Your task to perform on an android device: change text size in settings app Image 0: 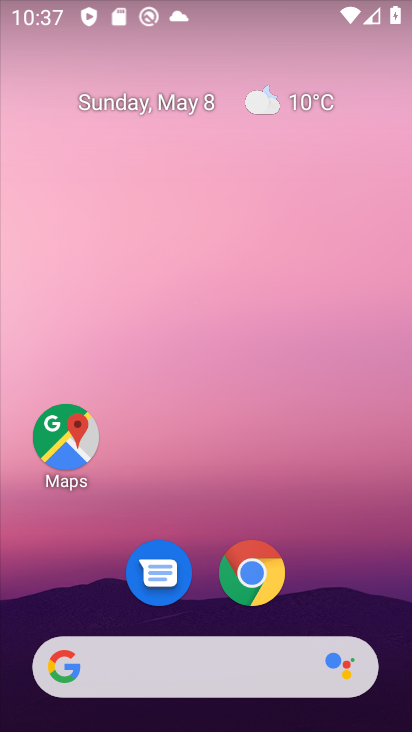
Step 0: drag from (318, 580) to (302, 54)
Your task to perform on an android device: change text size in settings app Image 1: 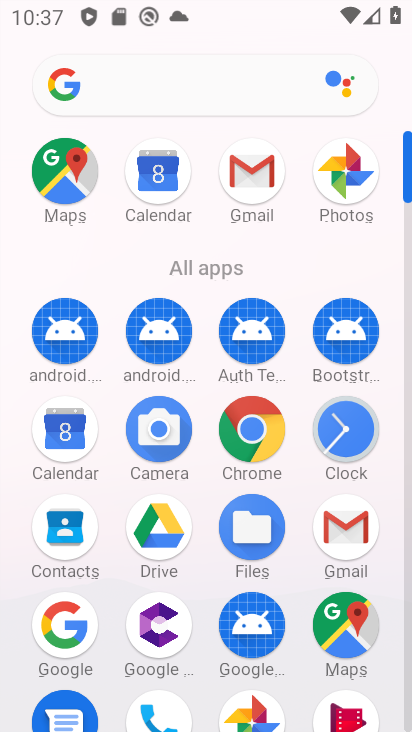
Step 1: click (405, 727)
Your task to perform on an android device: change text size in settings app Image 2: 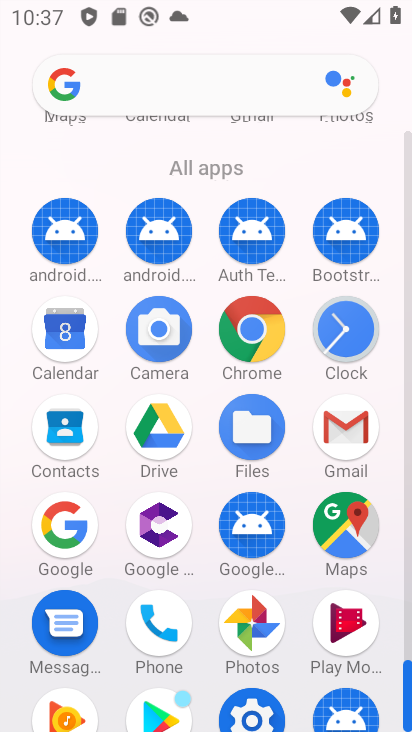
Step 2: click (255, 710)
Your task to perform on an android device: change text size in settings app Image 3: 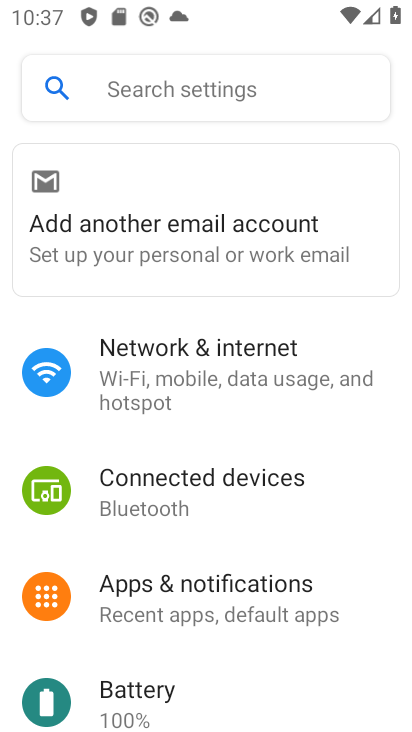
Step 3: drag from (232, 619) to (215, 288)
Your task to perform on an android device: change text size in settings app Image 4: 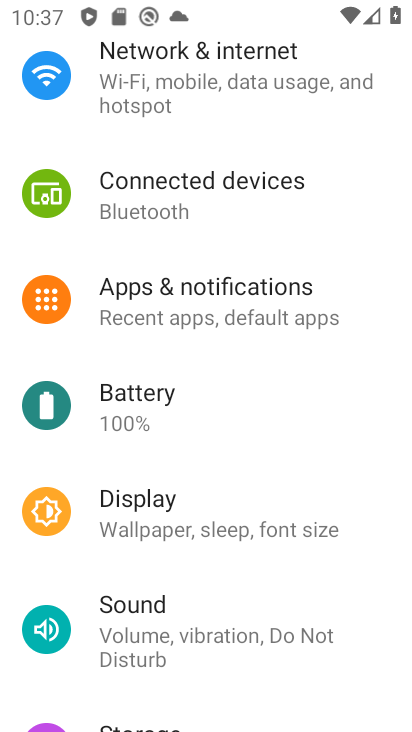
Step 4: click (207, 507)
Your task to perform on an android device: change text size in settings app Image 5: 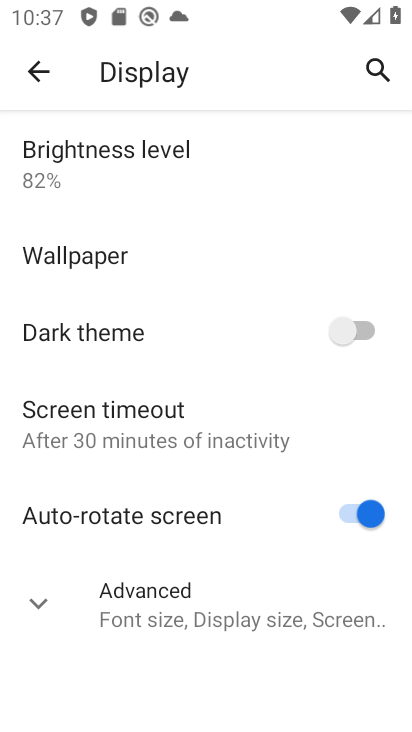
Step 5: click (156, 618)
Your task to perform on an android device: change text size in settings app Image 6: 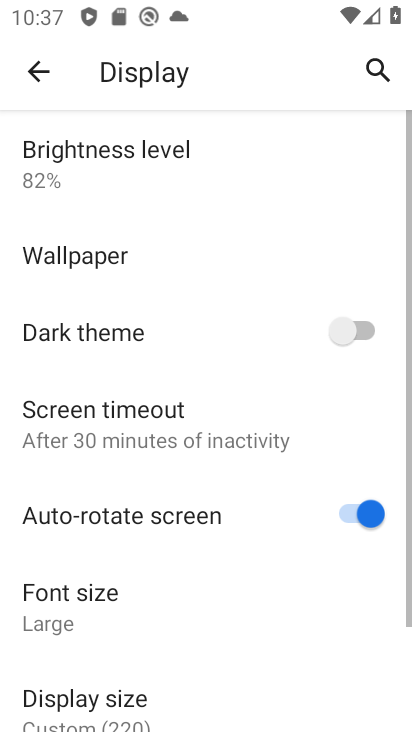
Step 6: click (156, 618)
Your task to perform on an android device: change text size in settings app Image 7: 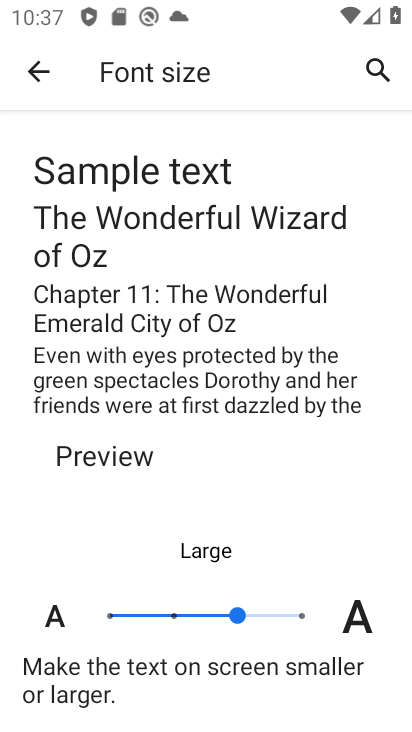
Step 7: click (68, 618)
Your task to perform on an android device: change text size in settings app Image 8: 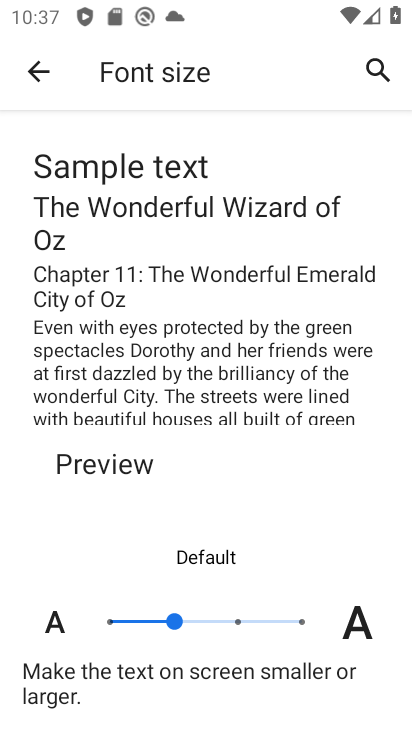
Step 8: task complete